Your task to perform on an android device: Is it going to rain tomorrow? Image 0: 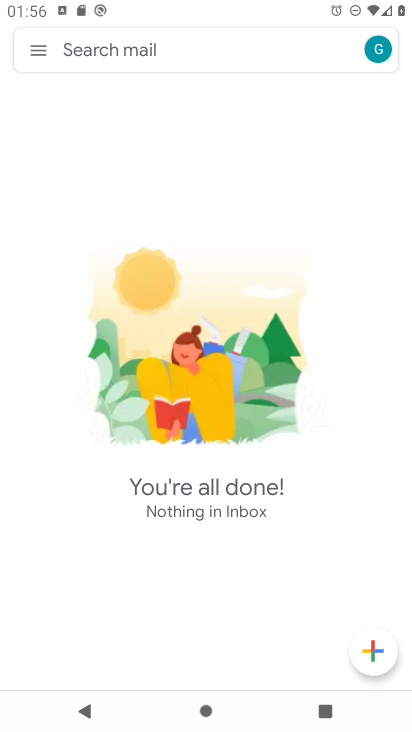
Step 0: press home button
Your task to perform on an android device: Is it going to rain tomorrow? Image 1: 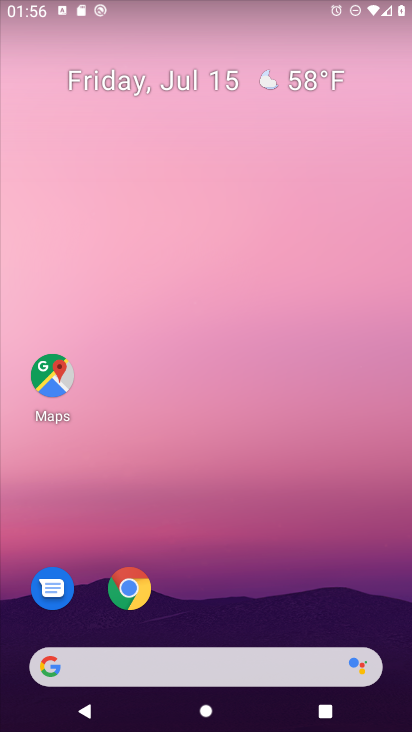
Step 1: click (308, 74)
Your task to perform on an android device: Is it going to rain tomorrow? Image 2: 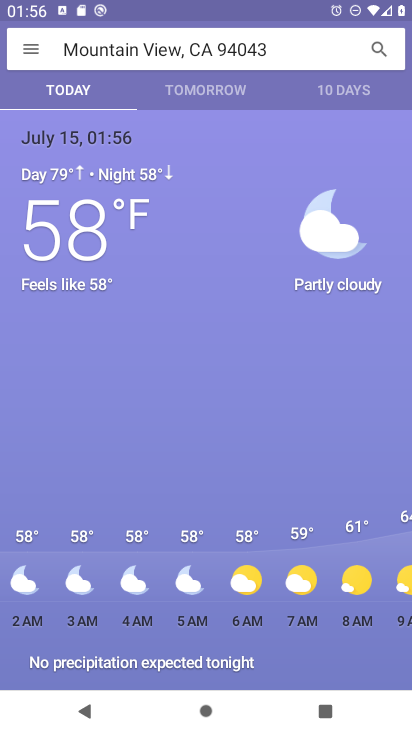
Step 2: click (198, 86)
Your task to perform on an android device: Is it going to rain tomorrow? Image 3: 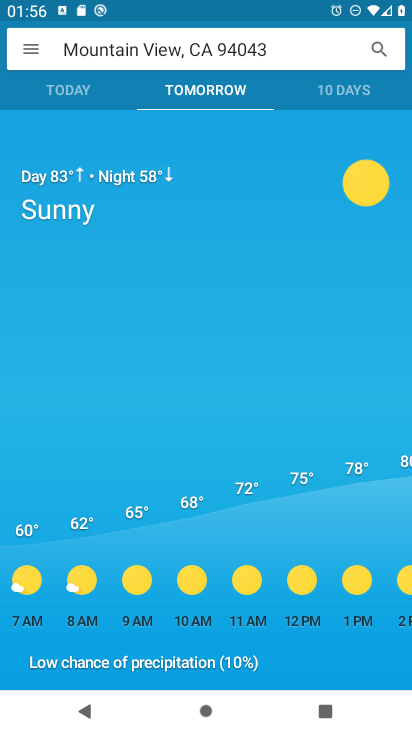
Step 3: drag from (354, 588) to (159, 593)
Your task to perform on an android device: Is it going to rain tomorrow? Image 4: 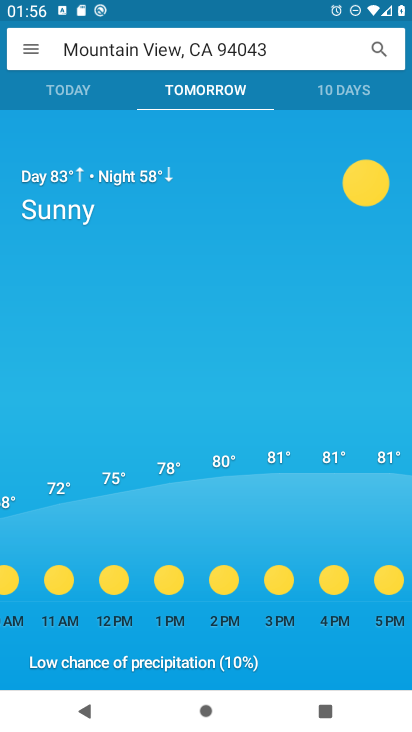
Step 4: drag from (341, 588) to (104, 590)
Your task to perform on an android device: Is it going to rain tomorrow? Image 5: 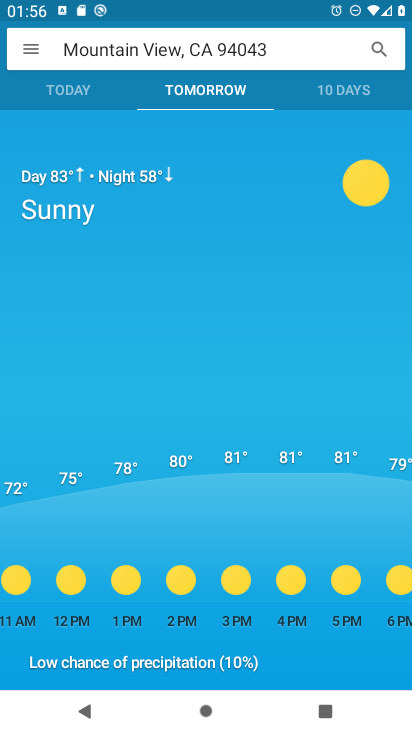
Step 5: drag from (394, 581) to (176, 590)
Your task to perform on an android device: Is it going to rain tomorrow? Image 6: 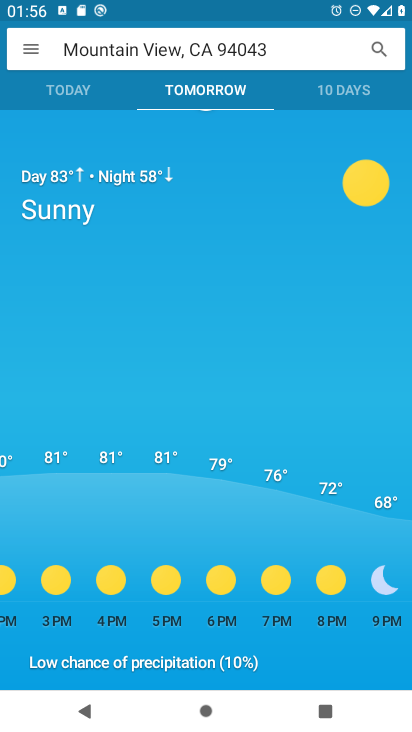
Step 6: click (176, 590)
Your task to perform on an android device: Is it going to rain tomorrow? Image 7: 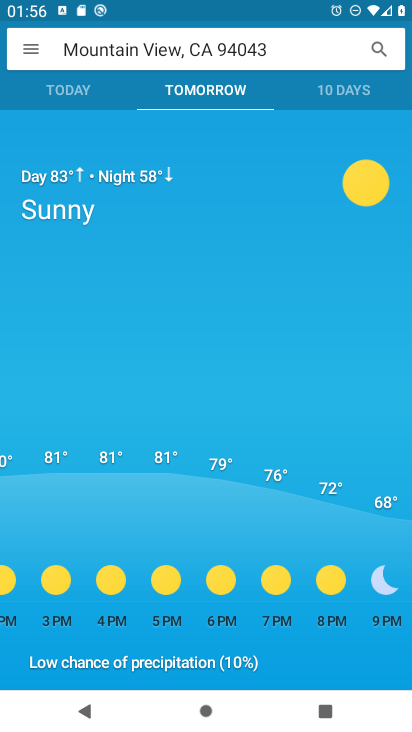
Step 7: task complete